Your task to perform on an android device: Show me popular videos on Youtube Image 0: 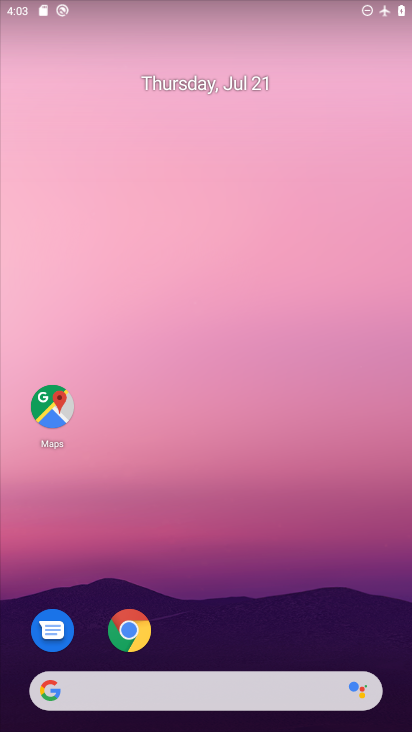
Step 0: drag from (214, 670) to (360, 240)
Your task to perform on an android device: Show me popular videos on Youtube Image 1: 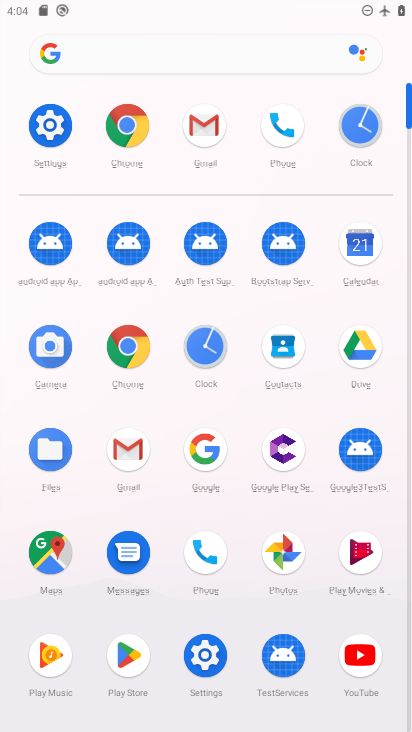
Step 1: click (355, 654)
Your task to perform on an android device: Show me popular videos on Youtube Image 2: 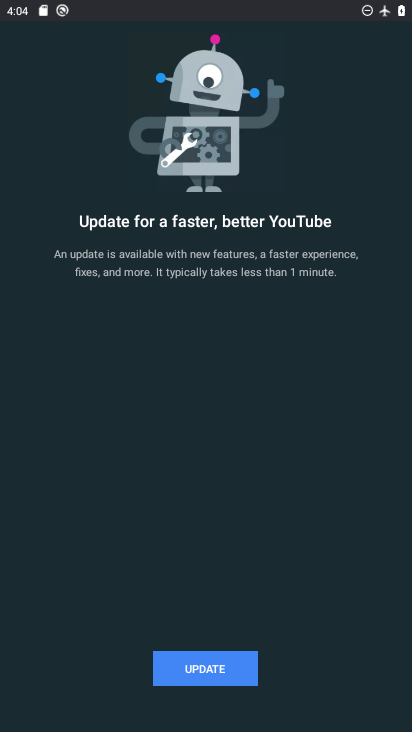
Step 2: click (225, 677)
Your task to perform on an android device: Show me popular videos on Youtube Image 3: 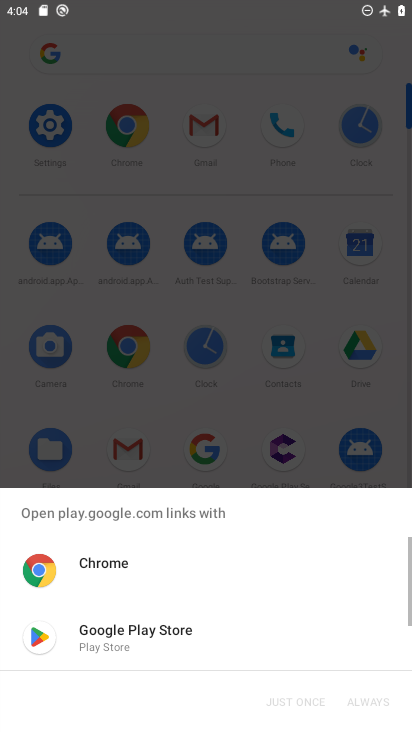
Step 3: click (179, 643)
Your task to perform on an android device: Show me popular videos on Youtube Image 4: 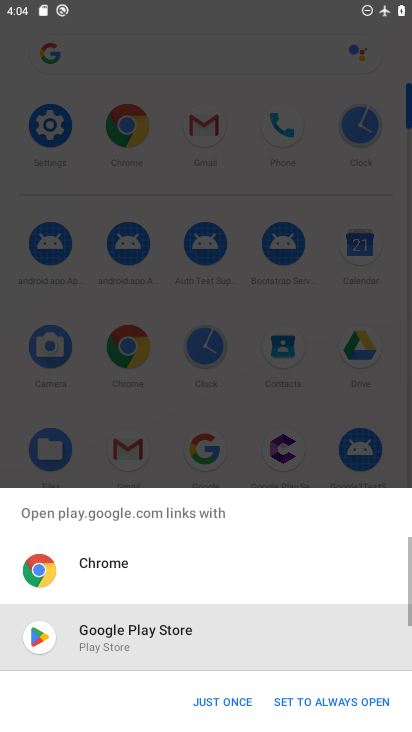
Step 4: click (222, 705)
Your task to perform on an android device: Show me popular videos on Youtube Image 5: 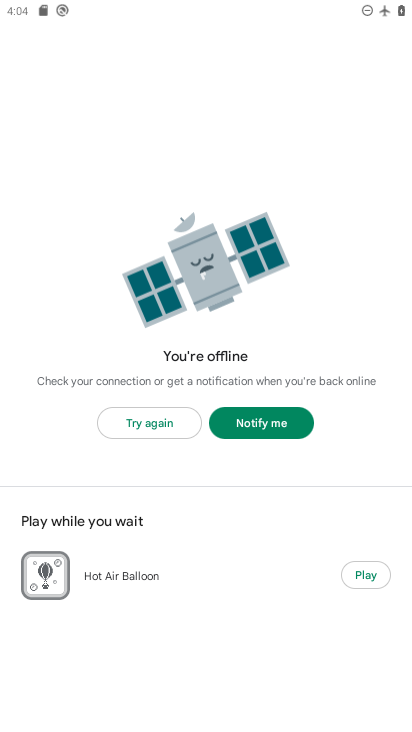
Step 5: click (160, 429)
Your task to perform on an android device: Show me popular videos on Youtube Image 6: 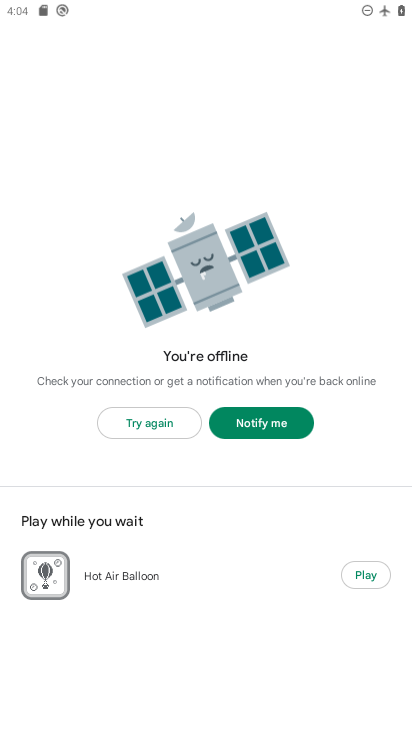
Step 6: press home button
Your task to perform on an android device: Show me popular videos on Youtube Image 7: 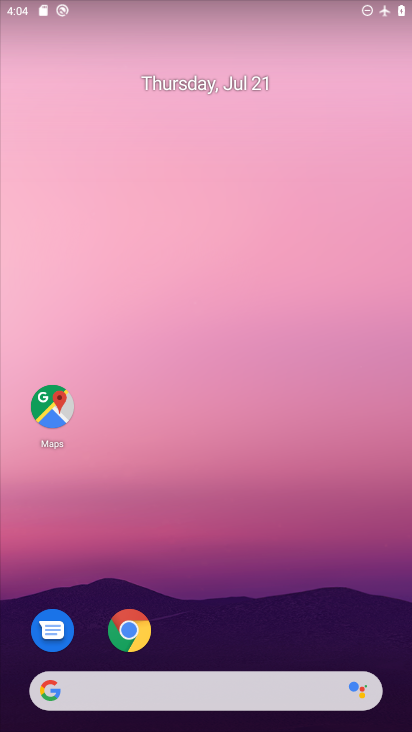
Step 7: drag from (209, 626) to (398, 383)
Your task to perform on an android device: Show me popular videos on Youtube Image 8: 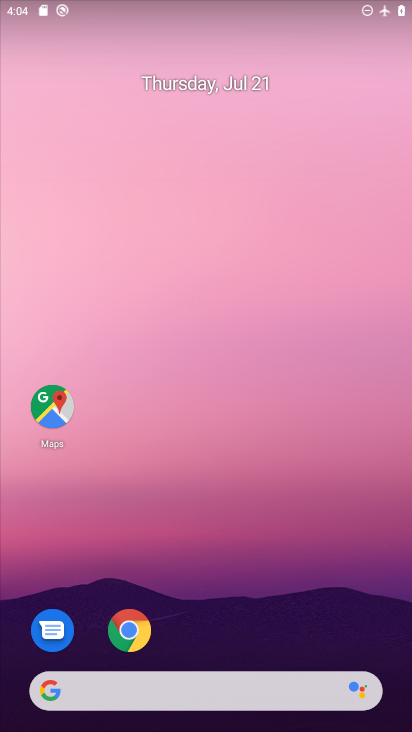
Step 8: drag from (226, 658) to (85, 721)
Your task to perform on an android device: Show me popular videos on Youtube Image 9: 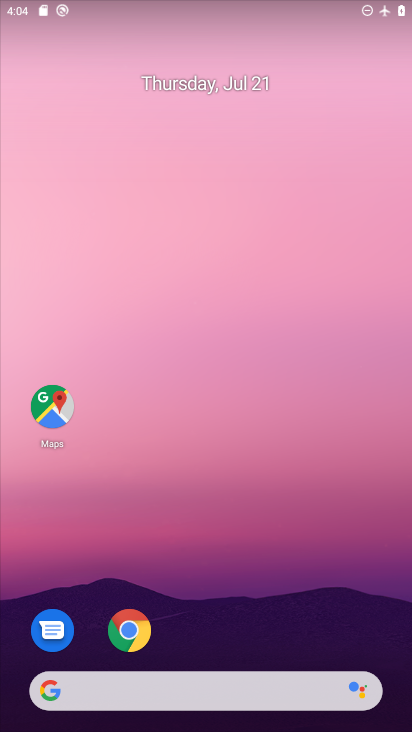
Step 9: drag from (199, 675) to (194, 30)
Your task to perform on an android device: Show me popular videos on Youtube Image 10: 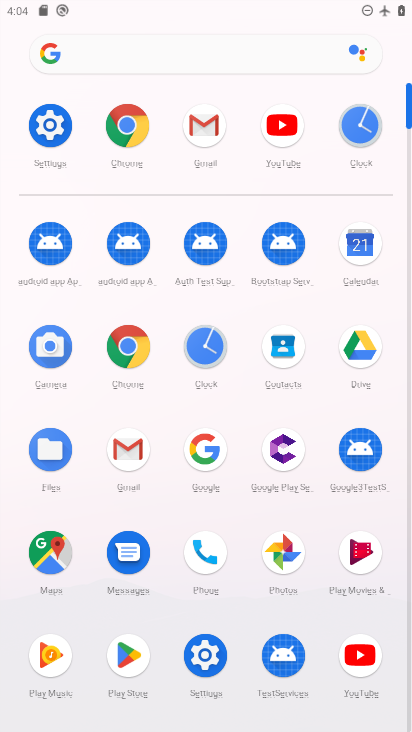
Step 10: click (353, 656)
Your task to perform on an android device: Show me popular videos on Youtube Image 11: 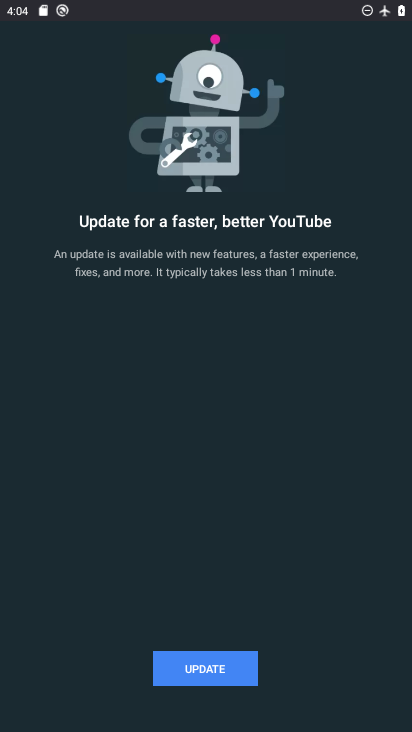
Step 11: click (183, 667)
Your task to perform on an android device: Show me popular videos on Youtube Image 12: 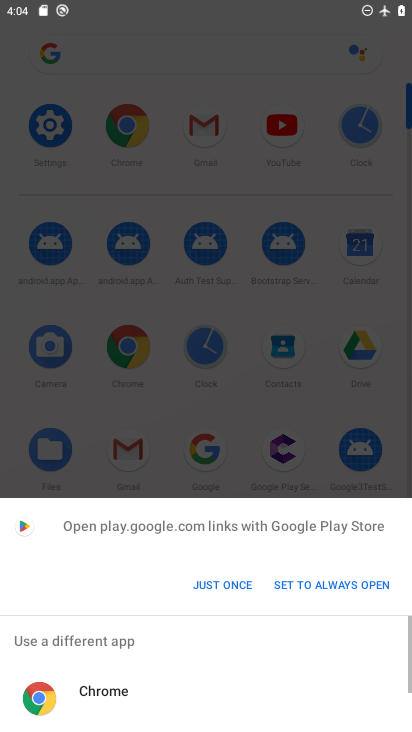
Step 12: click (236, 579)
Your task to perform on an android device: Show me popular videos on Youtube Image 13: 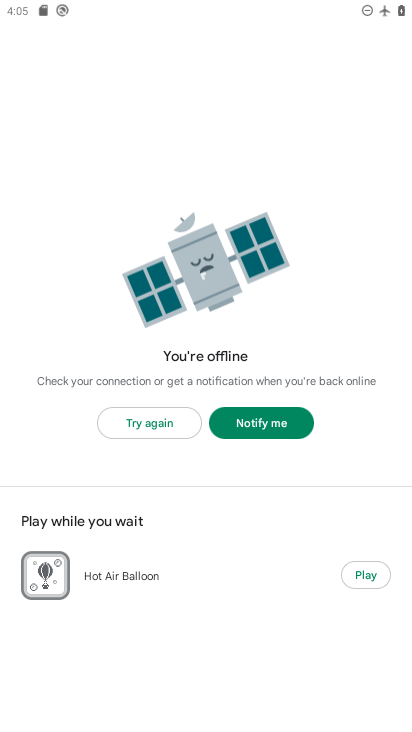
Step 13: task complete